Your task to perform on an android device: set an alarm Image 0: 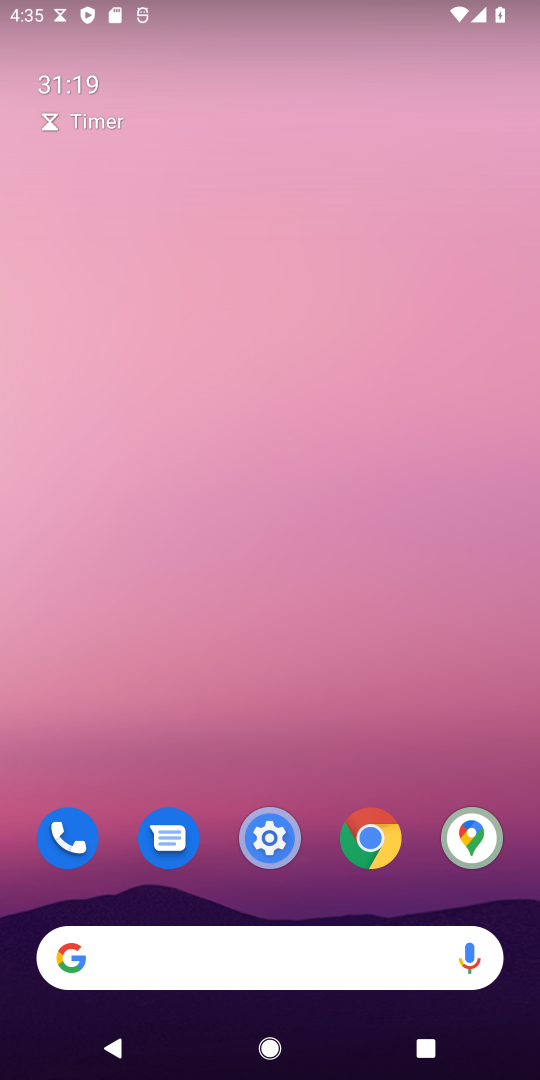
Step 0: drag from (320, 789) to (217, 140)
Your task to perform on an android device: set an alarm Image 1: 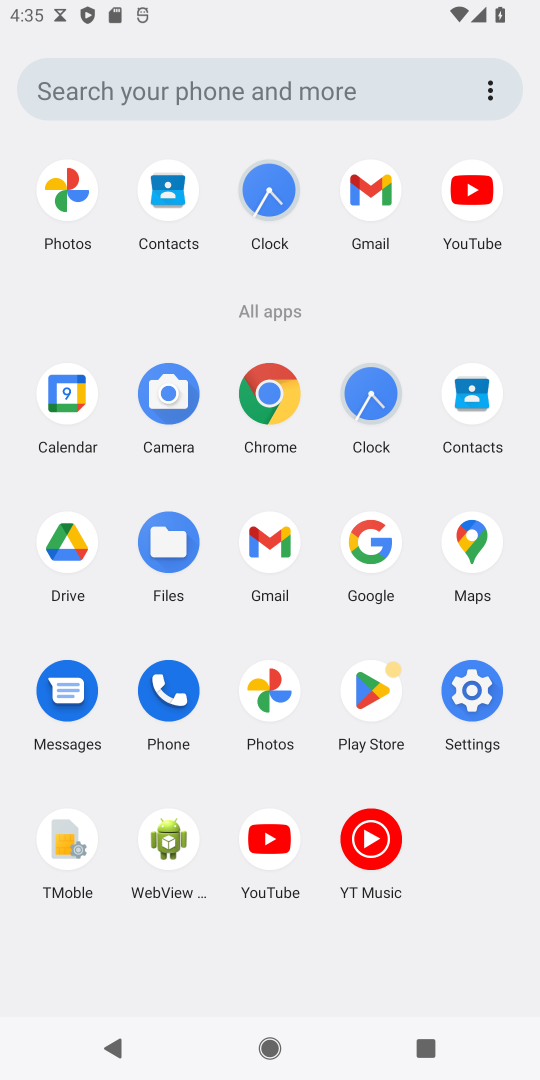
Step 1: click (280, 205)
Your task to perform on an android device: set an alarm Image 2: 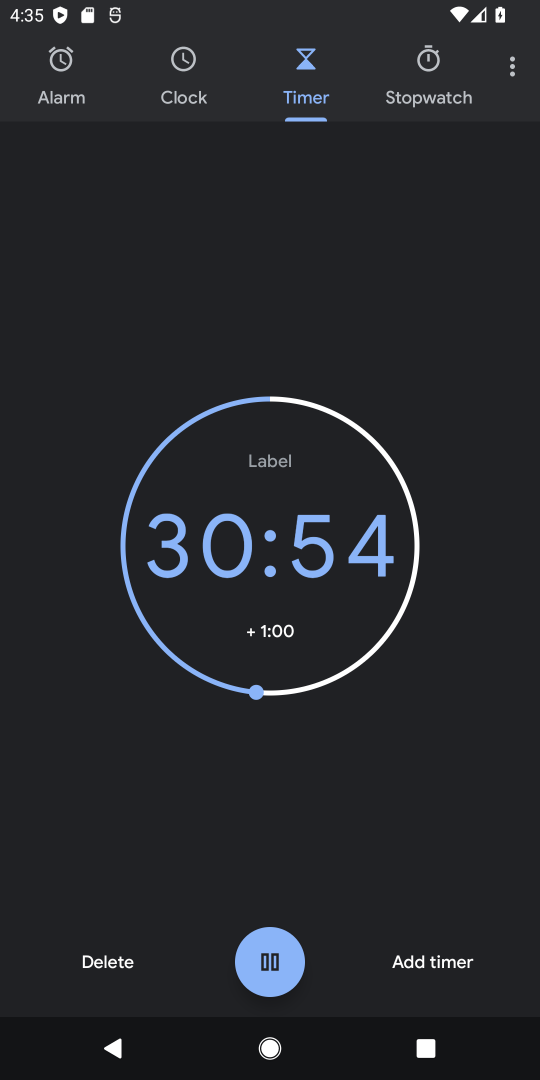
Step 2: click (79, 82)
Your task to perform on an android device: set an alarm Image 3: 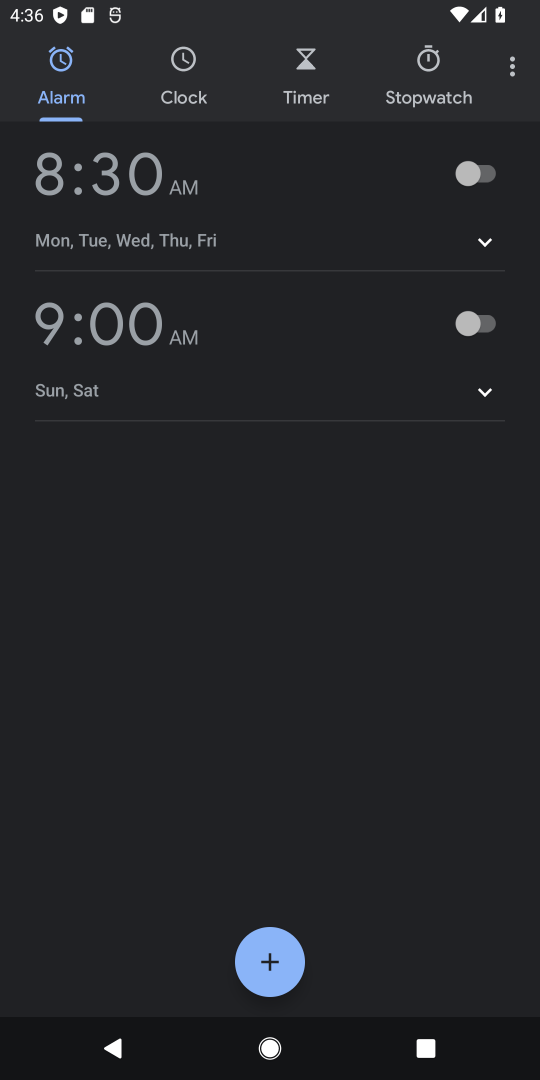
Step 3: click (272, 957)
Your task to perform on an android device: set an alarm Image 4: 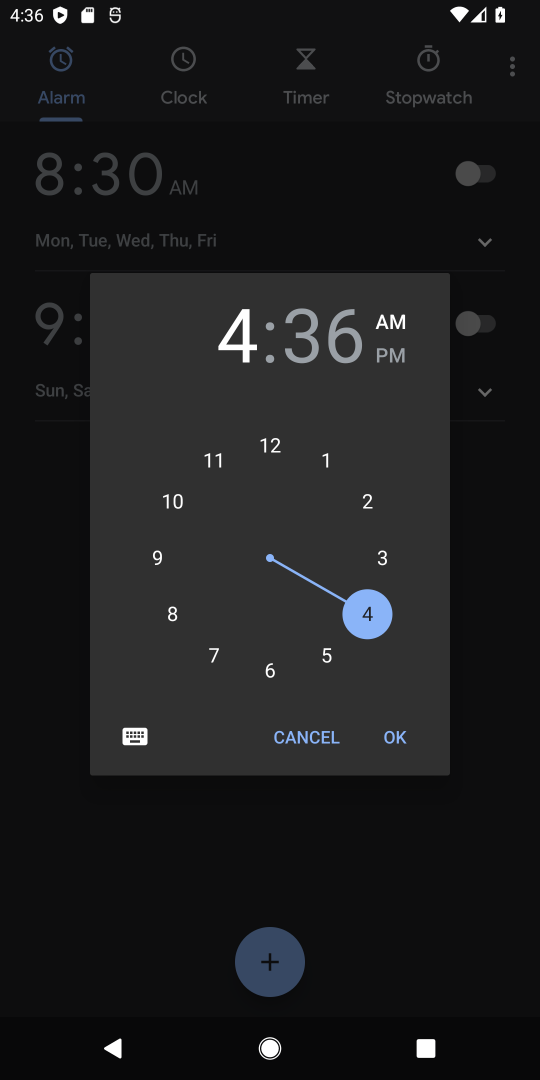
Step 4: click (375, 748)
Your task to perform on an android device: set an alarm Image 5: 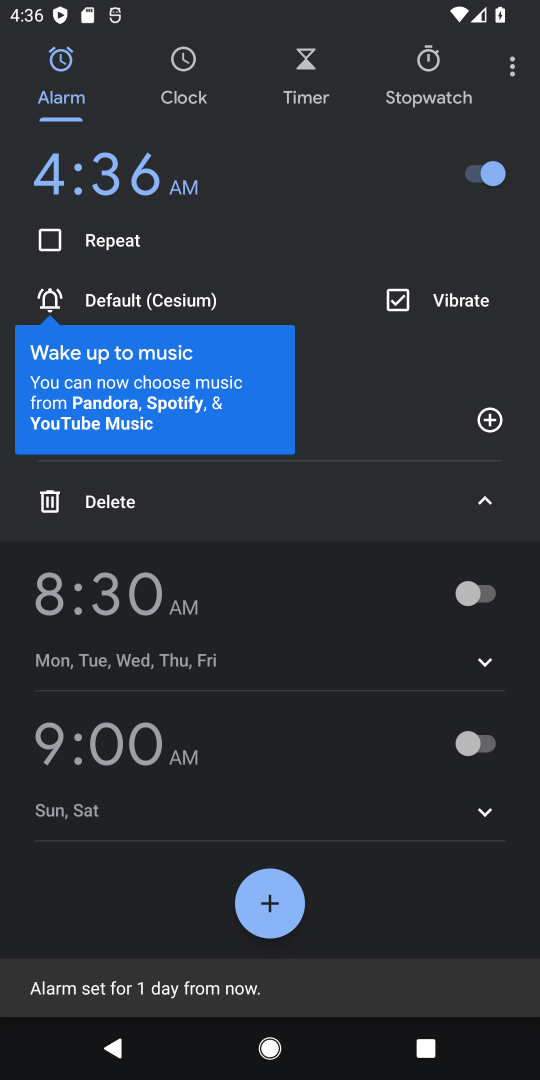
Step 5: task complete